Your task to perform on an android device: manage bookmarks in the chrome app Image 0: 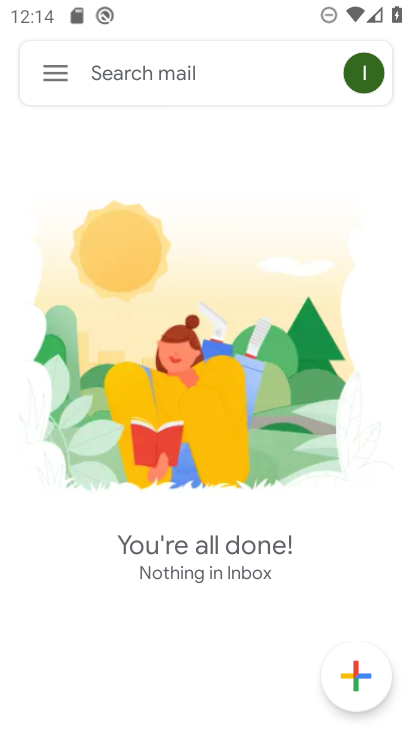
Step 0: drag from (94, 539) to (173, 28)
Your task to perform on an android device: manage bookmarks in the chrome app Image 1: 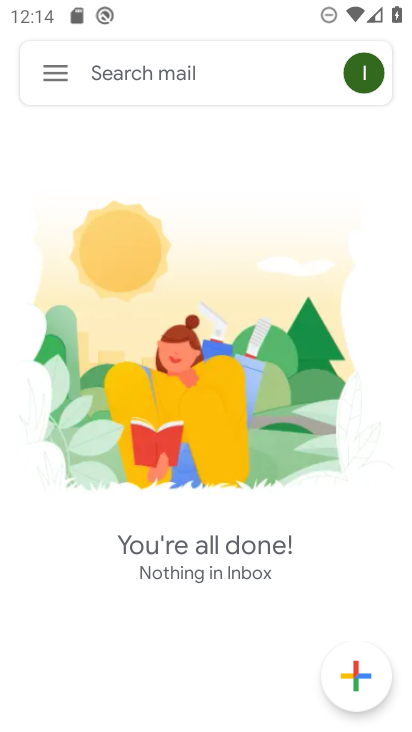
Step 1: drag from (280, 575) to (258, 43)
Your task to perform on an android device: manage bookmarks in the chrome app Image 2: 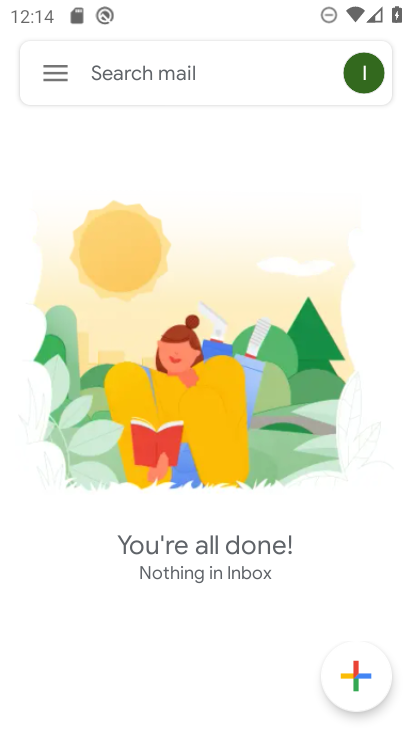
Step 2: press home button
Your task to perform on an android device: manage bookmarks in the chrome app Image 3: 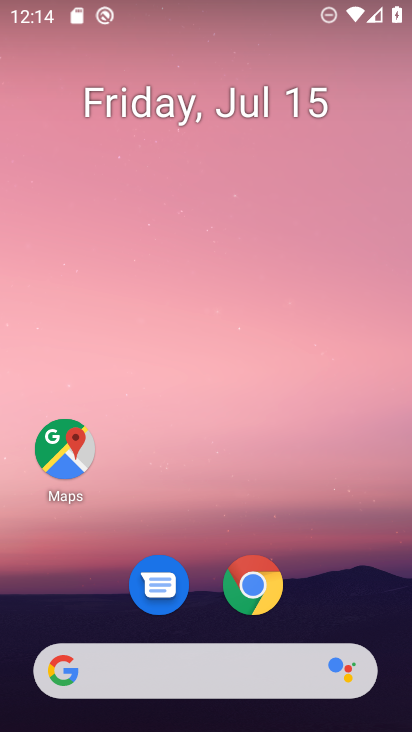
Step 3: click (326, 456)
Your task to perform on an android device: manage bookmarks in the chrome app Image 4: 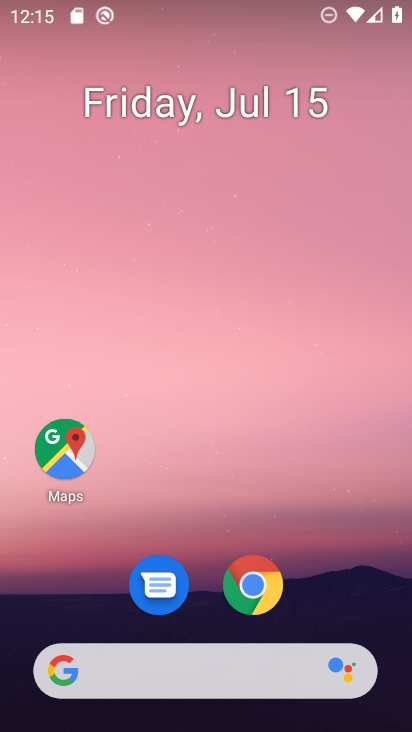
Step 4: click (253, 584)
Your task to perform on an android device: manage bookmarks in the chrome app Image 5: 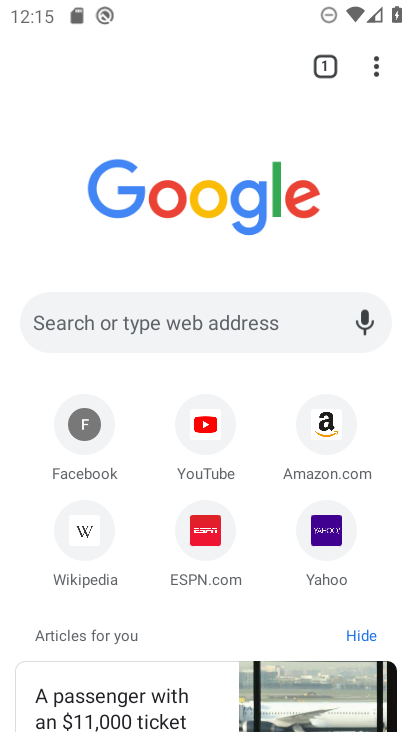
Step 5: click (375, 71)
Your task to perform on an android device: manage bookmarks in the chrome app Image 6: 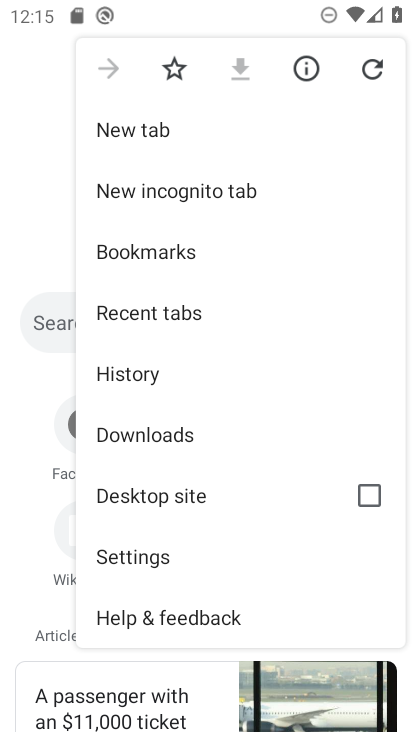
Step 6: click (176, 246)
Your task to perform on an android device: manage bookmarks in the chrome app Image 7: 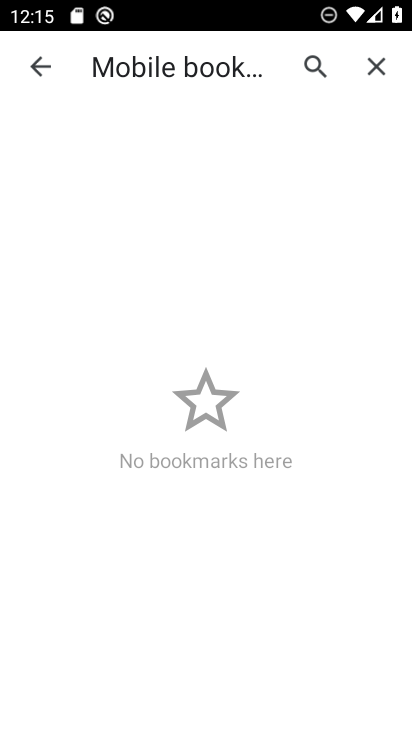
Step 7: task complete